Your task to perform on an android device: Find coffee shops on Maps Image 0: 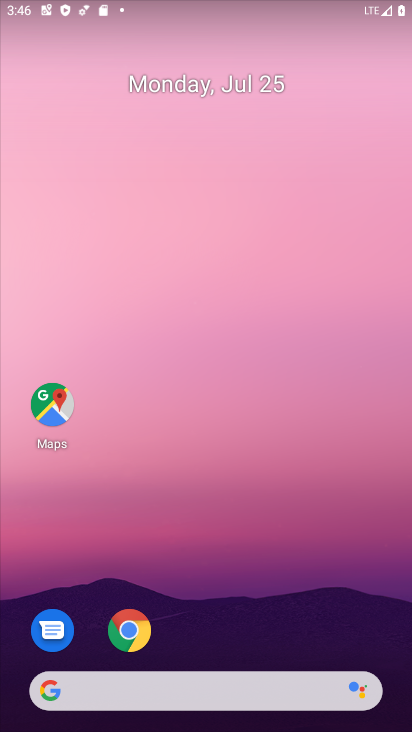
Step 0: drag from (191, 640) to (146, 0)
Your task to perform on an android device: Find coffee shops on Maps Image 1: 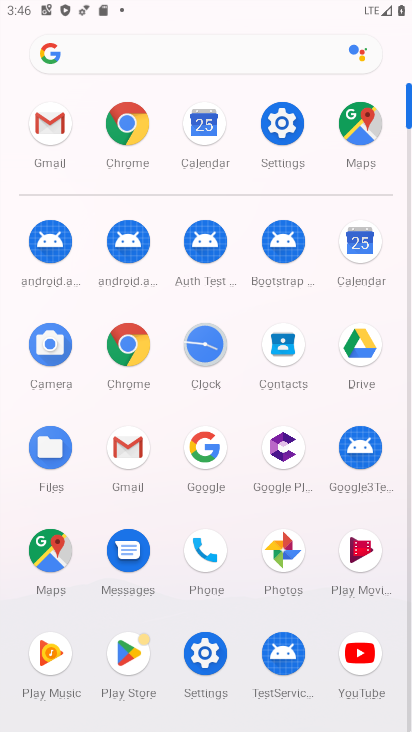
Step 1: click (55, 569)
Your task to perform on an android device: Find coffee shops on Maps Image 2: 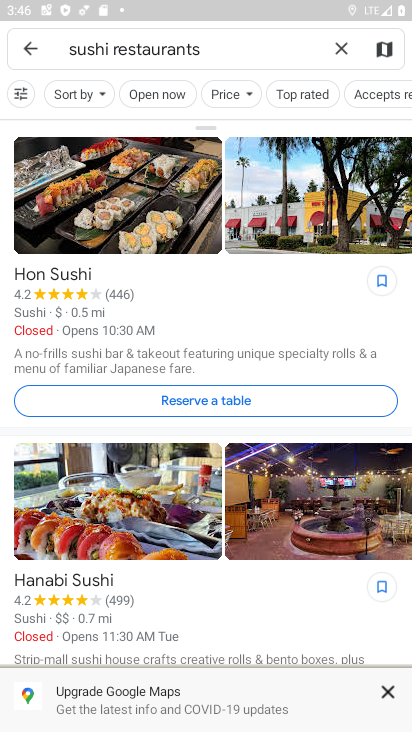
Step 2: click (343, 45)
Your task to perform on an android device: Find coffee shops on Maps Image 3: 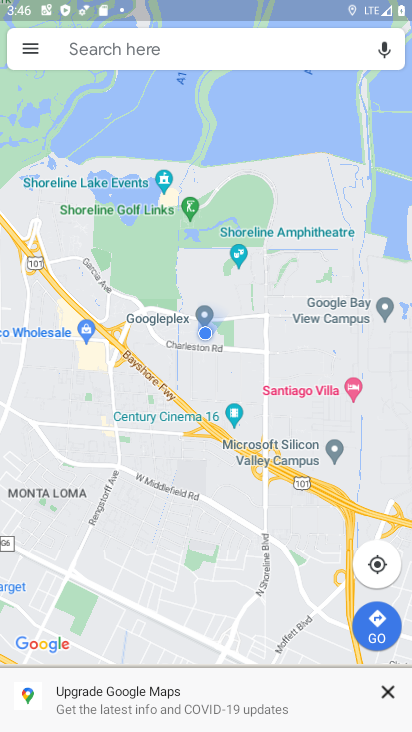
Step 3: click (253, 44)
Your task to perform on an android device: Find coffee shops on Maps Image 4: 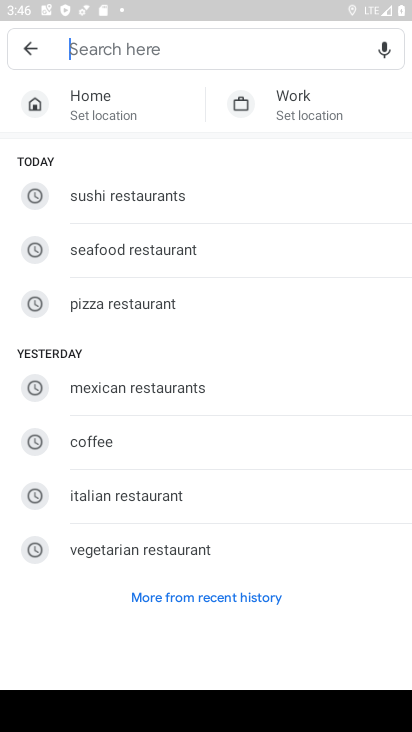
Step 4: type "coffee shops"
Your task to perform on an android device: Find coffee shops on Maps Image 5: 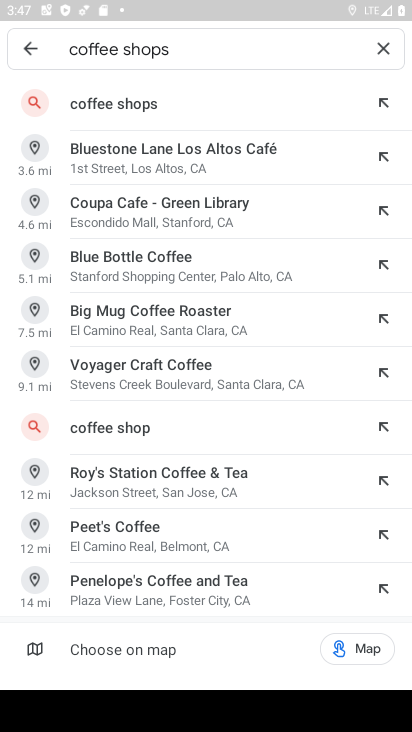
Step 5: click (148, 107)
Your task to perform on an android device: Find coffee shops on Maps Image 6: 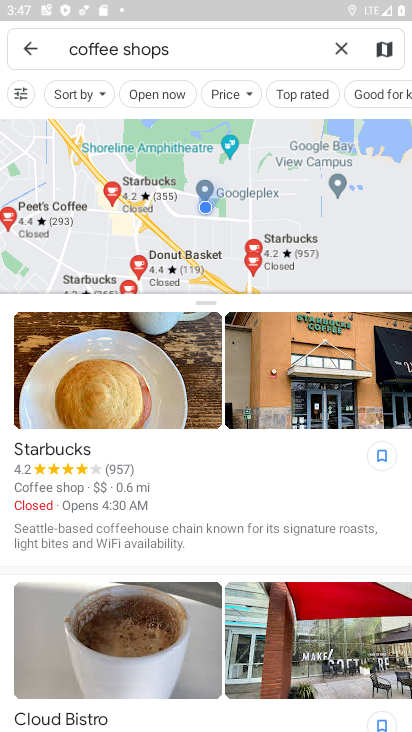
Step 6: task complete